Your task to perform on an android device: Open Google Image 0: 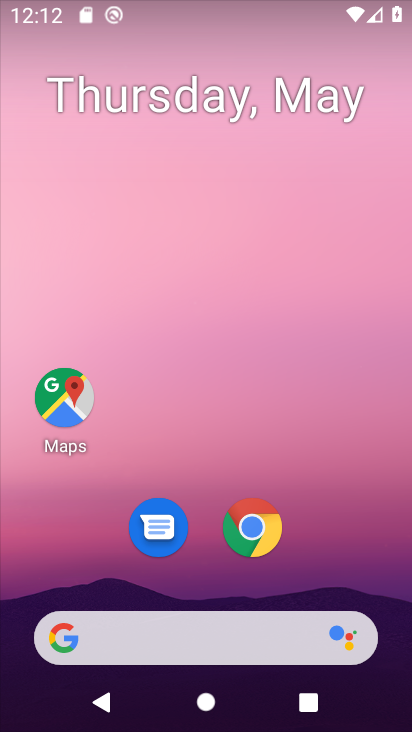
Step 0: drag from (221, 539) to (337, 14)
Your task to perform on an android device: Open Google Image 1: 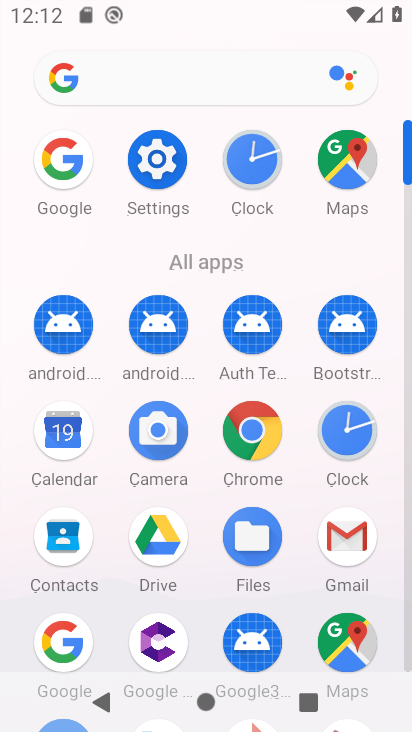
Step 1: click (66, 639)
Your task to perform on an android device: Open Google Image 2: 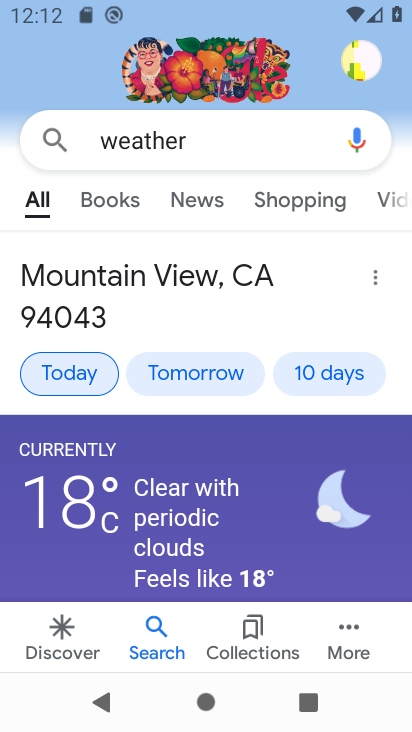
Step 2: task complete